Your task to perform on an android device: Search for pizza restaurants on Maps Image 0: 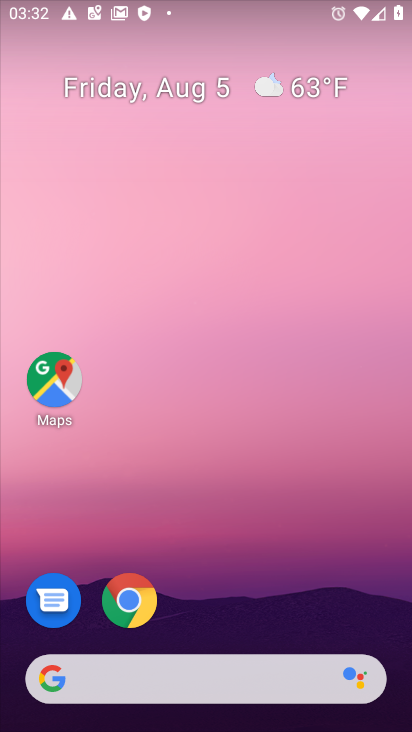
Step 0: click (53, 384)
Your task to perform on an android device: Search for pizza restaurants on Maps Image 1: 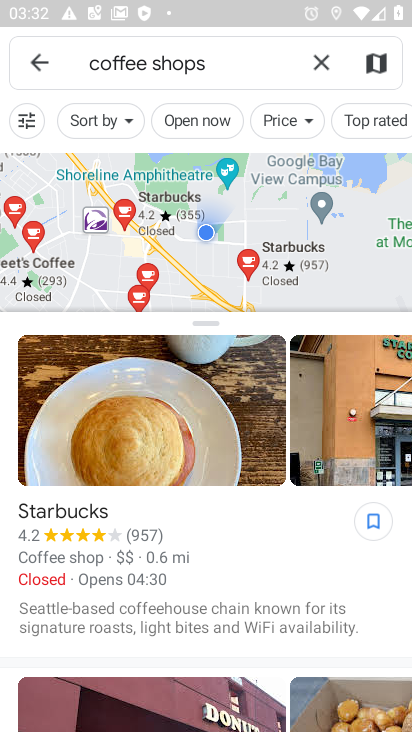
Step 1: click (323, 64)
Your task to perform on an android device: Search for pizza restaurants on Maps Image 2: 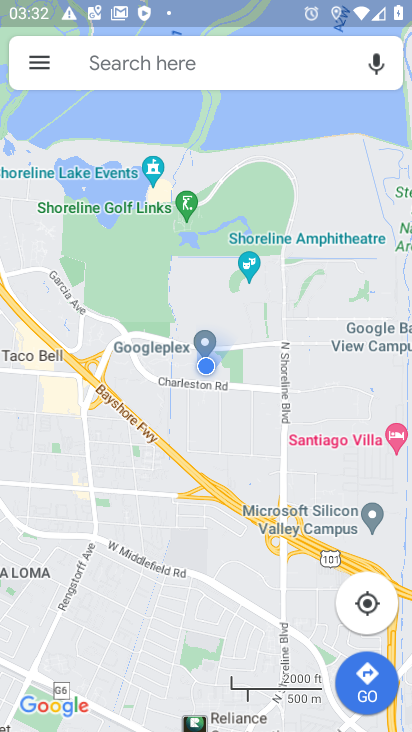
Step 2: click (246, 75)
Your task to perform on an android device: Search for pizza restaurants on Maps Image 3: 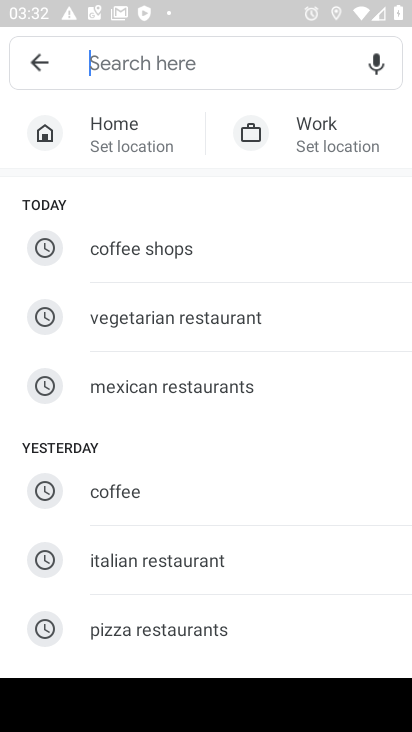
Step 3: type "pizza restaurants"
Your task to perform on an android device: Search for pizza restaurants on Maps Image 4: 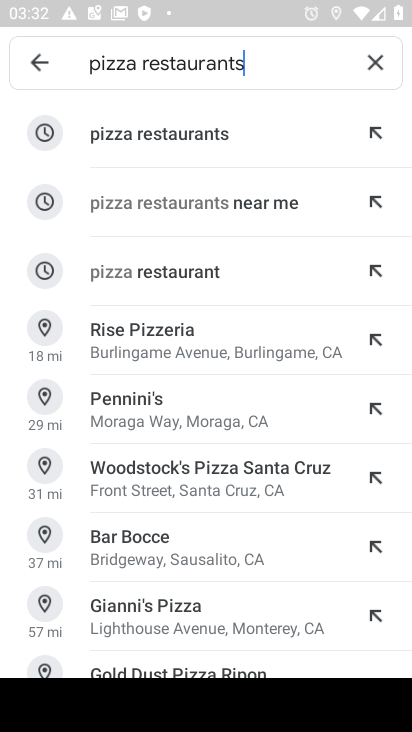
Step 4: click (192, 140)
Your task to perform on an android device: Search for pizza restaurants on Maps Image 5: 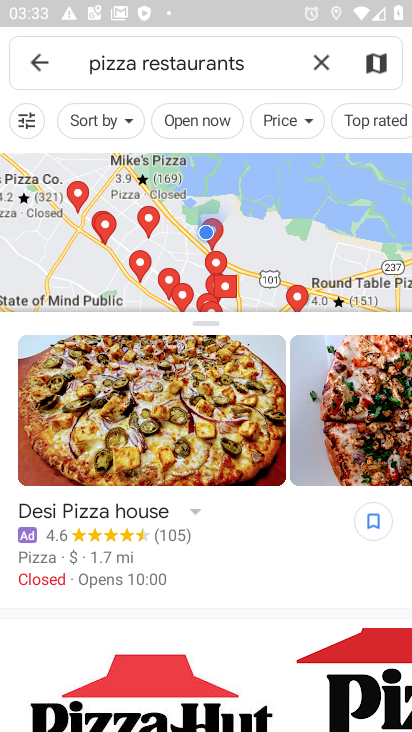
Step 5: task complete